Your task to perform on an android device: Open the phone app and click the voicemail tab. Image 0: 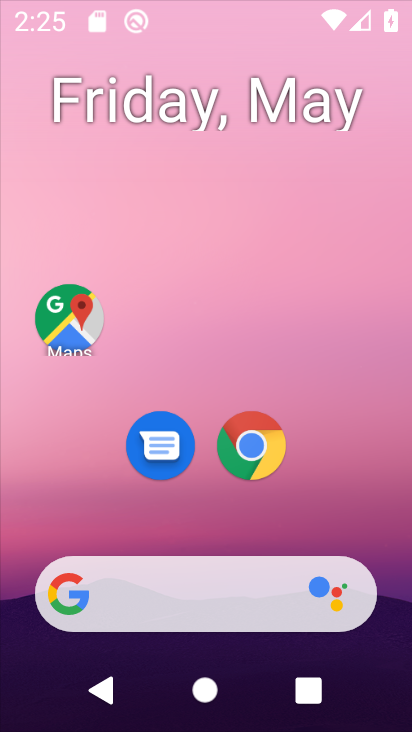
Step 0: drag from (259, 361) to (245, 289)
Your task to perform on an android device: Open the phone app and click the voicemail tab. Image 1: 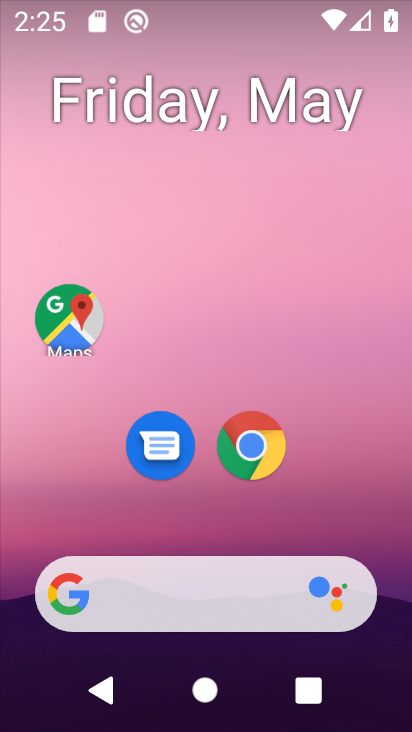
Step 1: drag from (194, 506) to (257, 176)
Your task to perform on an android device: Open the phone app and click the voicemail tab. Image 2: 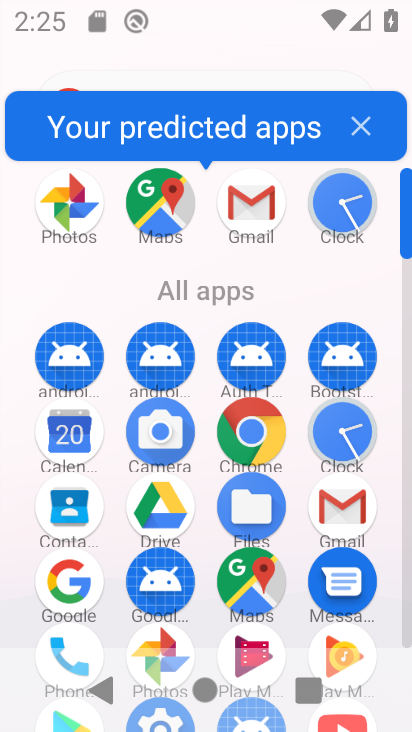
Step 2: drag from (208, 615) to (253, 238)
Your task to perform on an android device: Open the phone app and click the voicemail tab. Image 3: 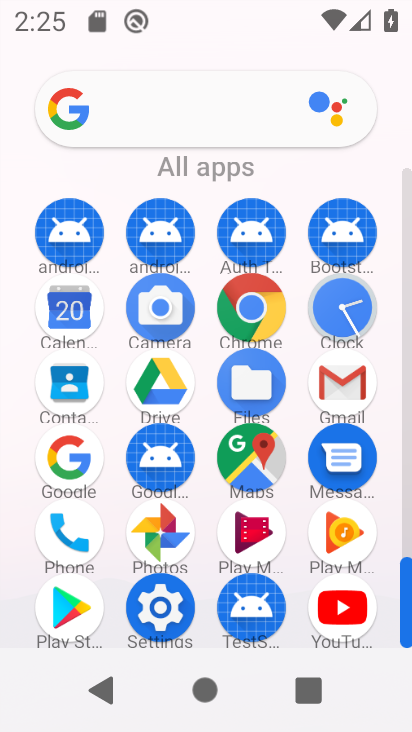
Step 3: drag from (196, 590) to (220, 288)
Your task to perform on an android device: Open the phone app and click the voicemail tab. Image 4: 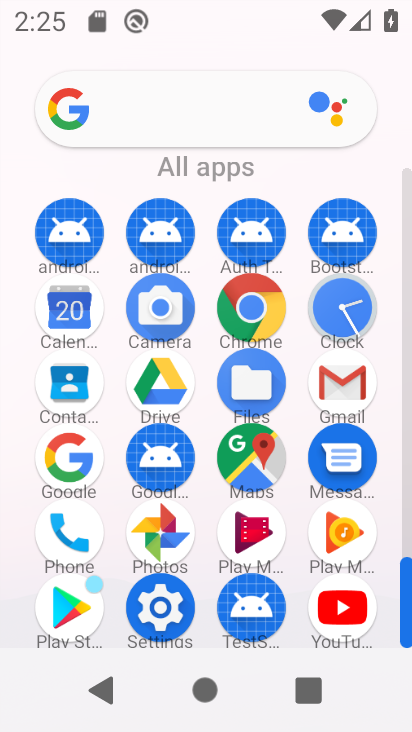
Step 4: drag from (194, 538) to (233, 262)
Your task to perform on an android device: Open the phone app and click the voicemail tab. Image 5: 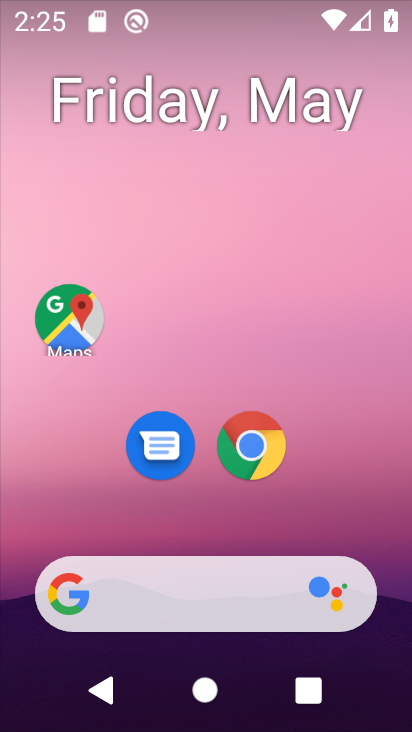
Step 5: drag from (217, 491) to (266, 98)
Your task to perform on an android device: Open the phone app and click the voicemail tab. Image 6: 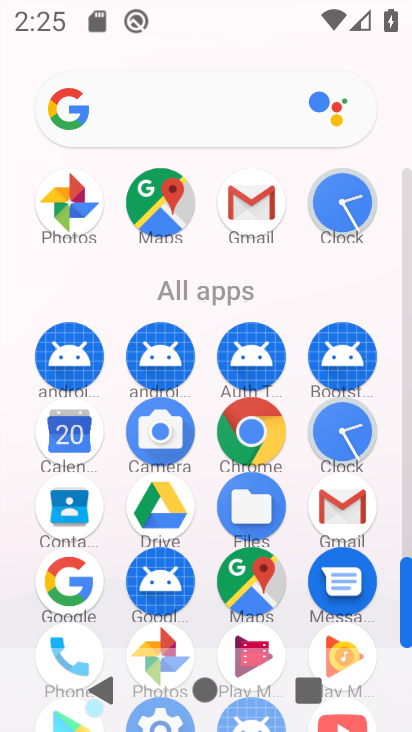
Step 6: click (77, 627)
Your task to perform on an android device: Open the phone app and click the voicemail tab. Image 7: 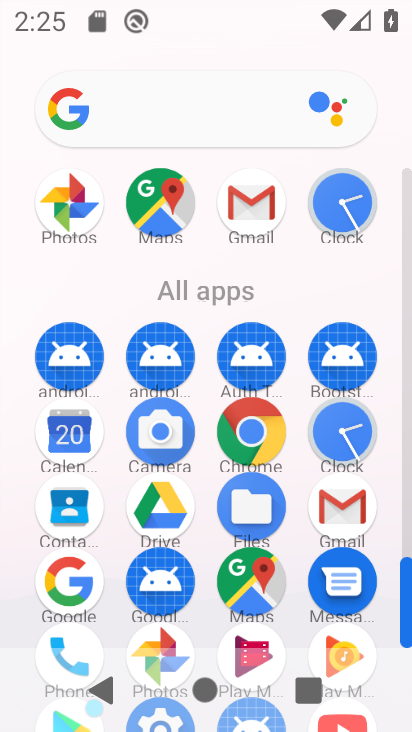
Step 7: click (77, 627)
Your task to perform on an android device: Open the phone app and click the voicemail tab. Image 8: 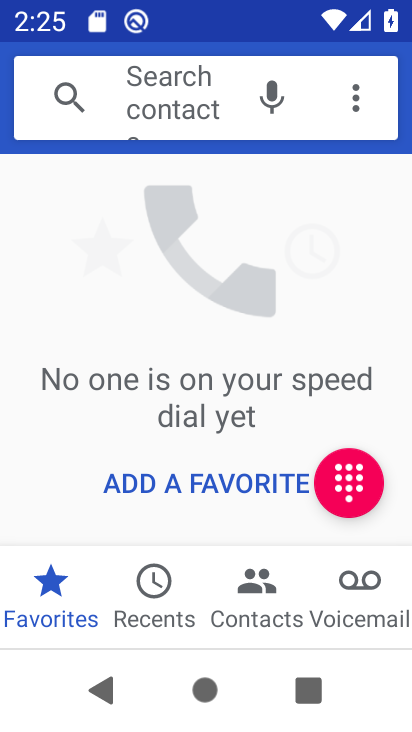
Step 8: click (339, 582)
Your task to perform on an android device: Open the phone app and click the voicemail tab. Image 9: 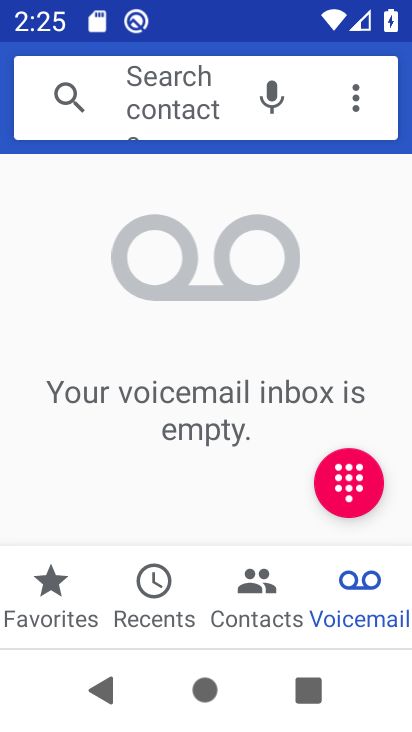
Step 9: task complete